Your task to perform on an android device: Open Google Image 0: 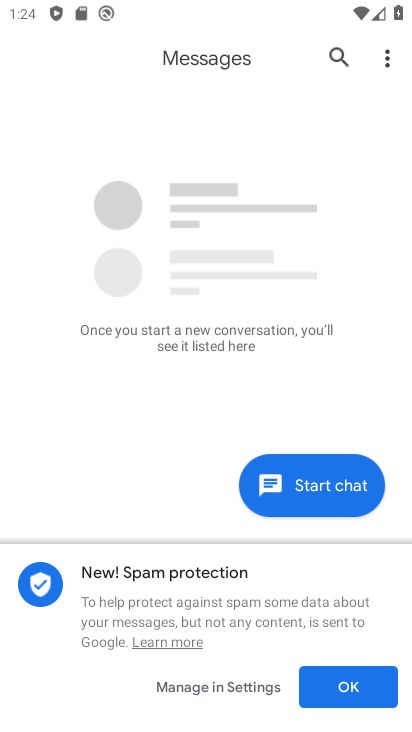
Step 0: press home button
Your task to perform on an android device: Open Google Image 1: 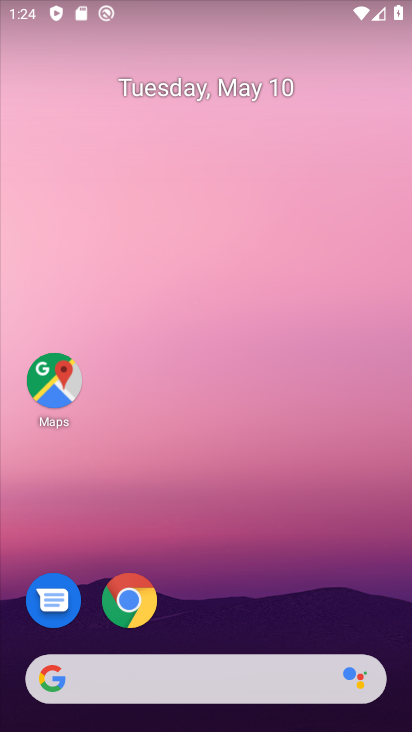
Step 1: drag from (183, 639) to (115, 7)
Your task to perform on an android device: Open Google Image 2: 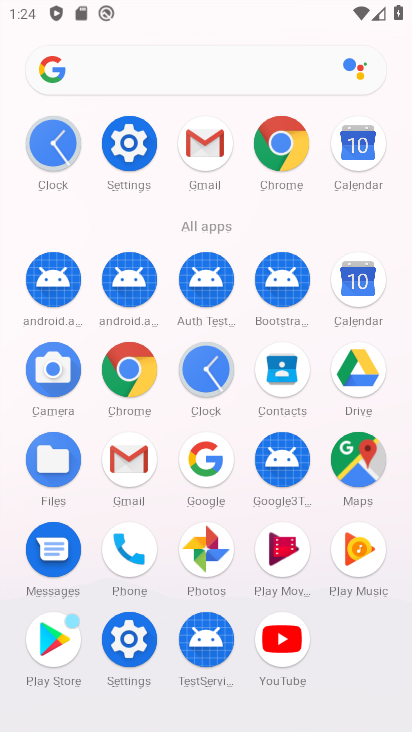
Step 2: click (191, 467)
Your task to perform on an android device: Open Google Image 3: 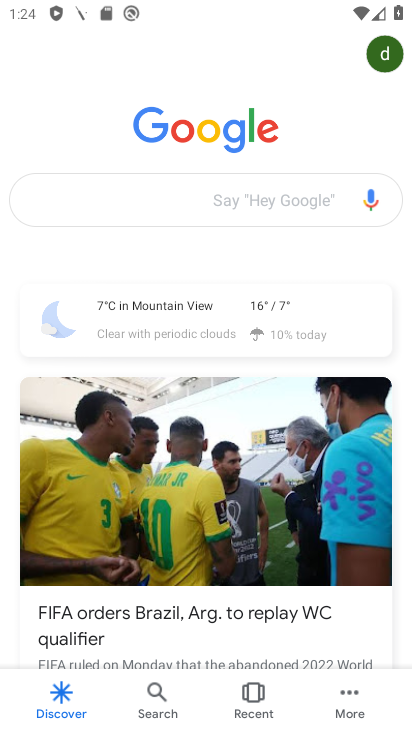
Step 3: task complete